Your task to perform on an android device: Open settings on Google Maps Image 0: 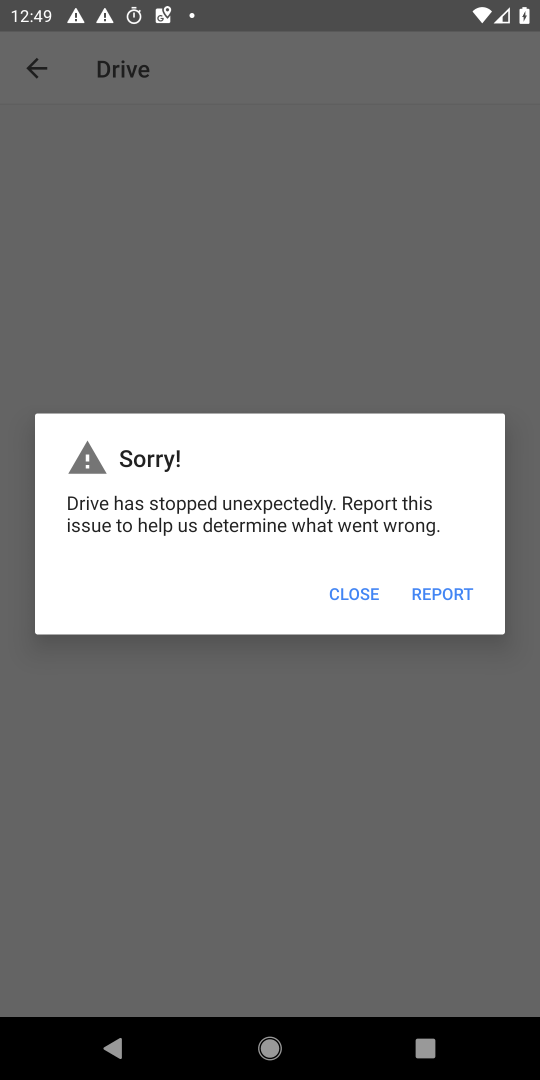
Step 0: press home button
Your task to perform on an android device: Open settings on Google Maps Image 1: 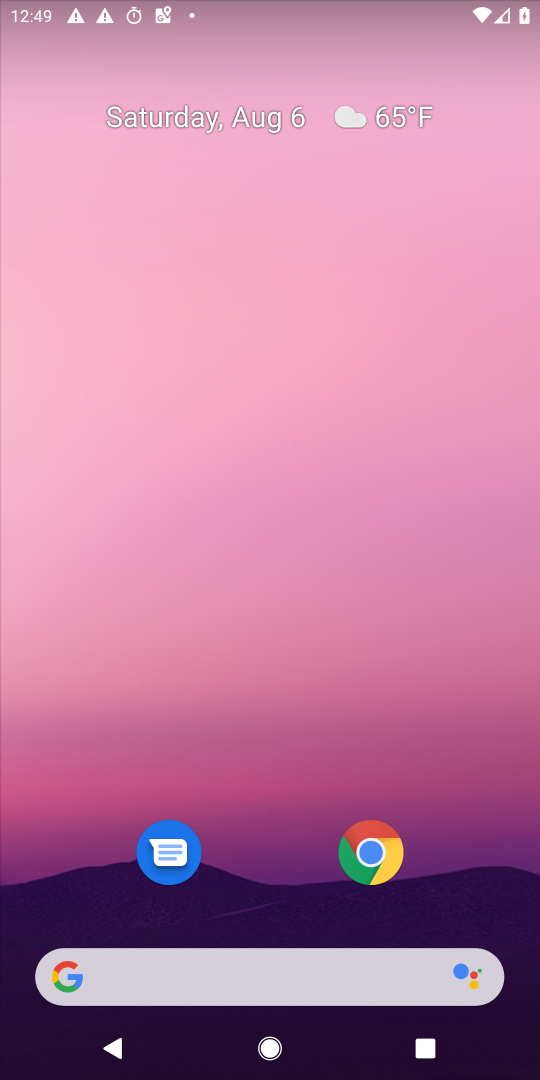
Step 1: drag from (288, 988) to (253, 202)
Your task to perform on an android device: Open settings on Google Maps Image 2: 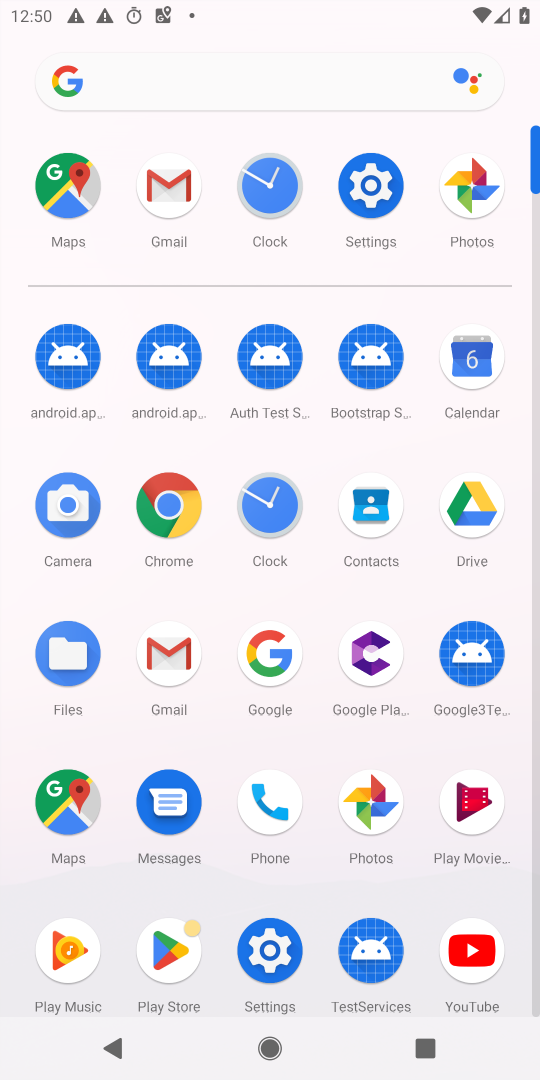
Step 2: click (47, 188)
Your task to perform on an android device: Open settings on Google Maps Image 3: 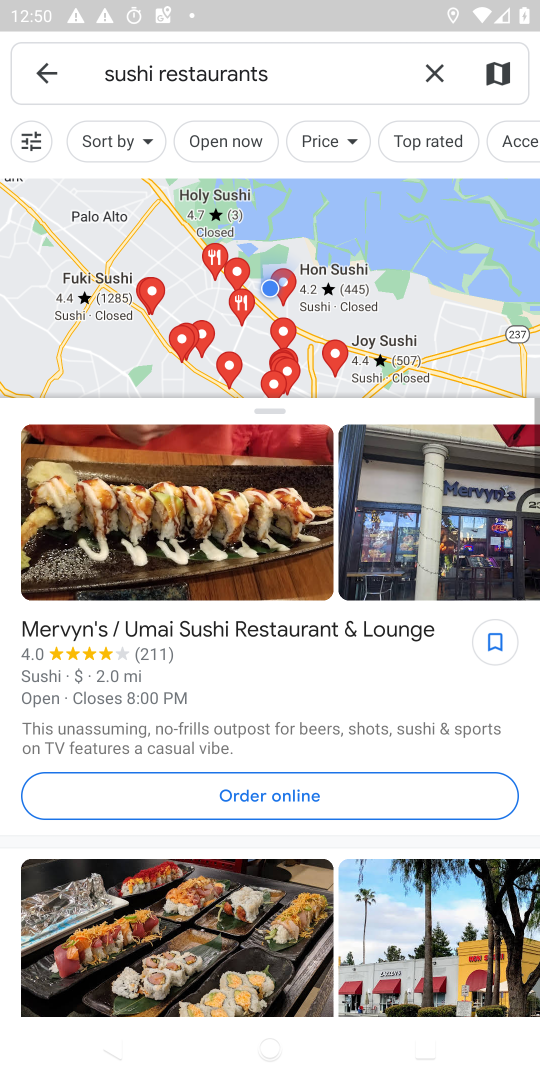
Step 3: click (33, 70)
Your task to perform on an android device: Open settings on Google Maps Image 4: 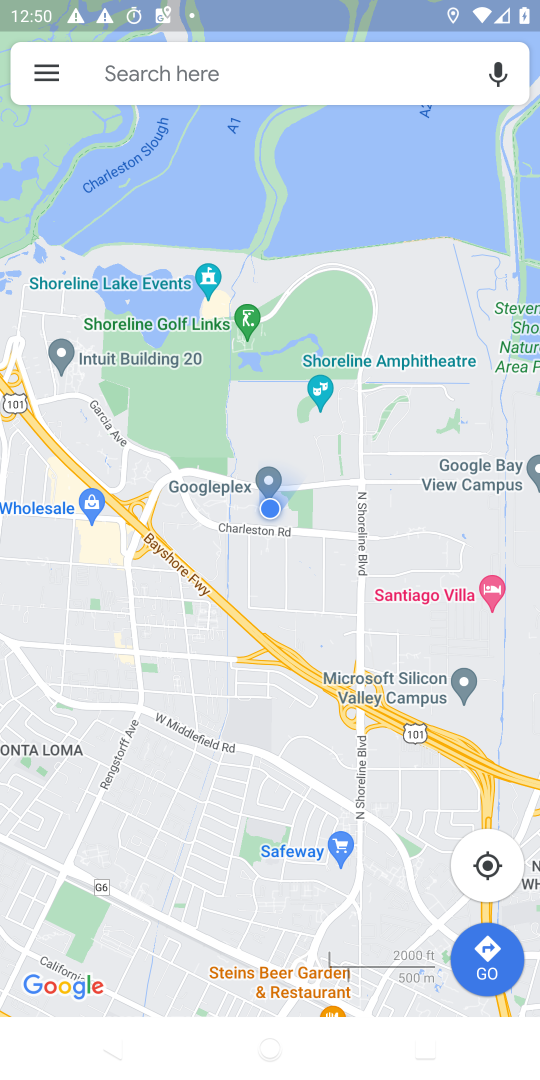
Step 4: click (33, 70)
Your task to perform on an android device: Open settings on Google Maps Image 5: 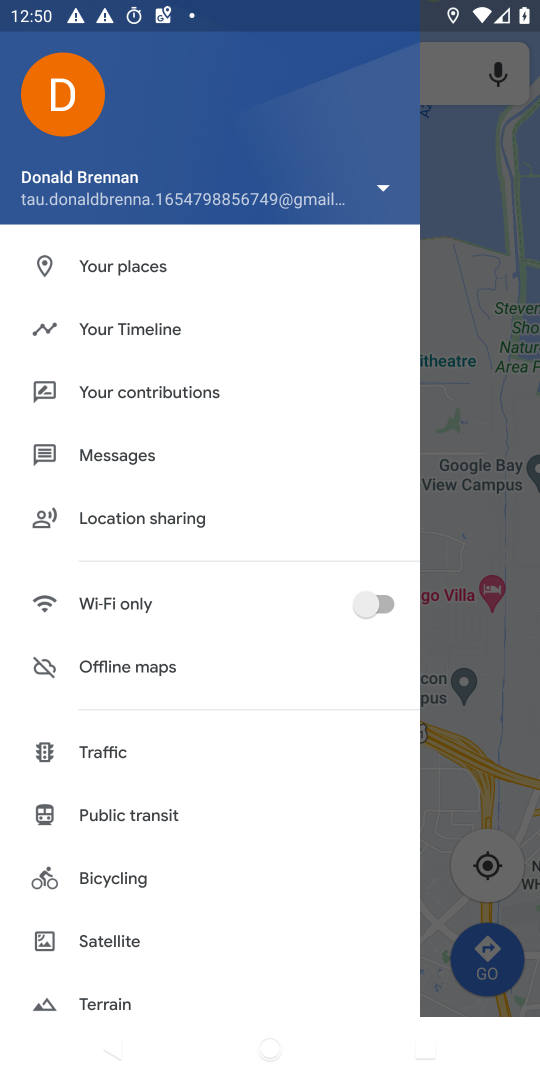
Step 5: drag from (115, 945) to (153, 818)
Your task to perform on an android device: Open settings on Google Maps Image 6: 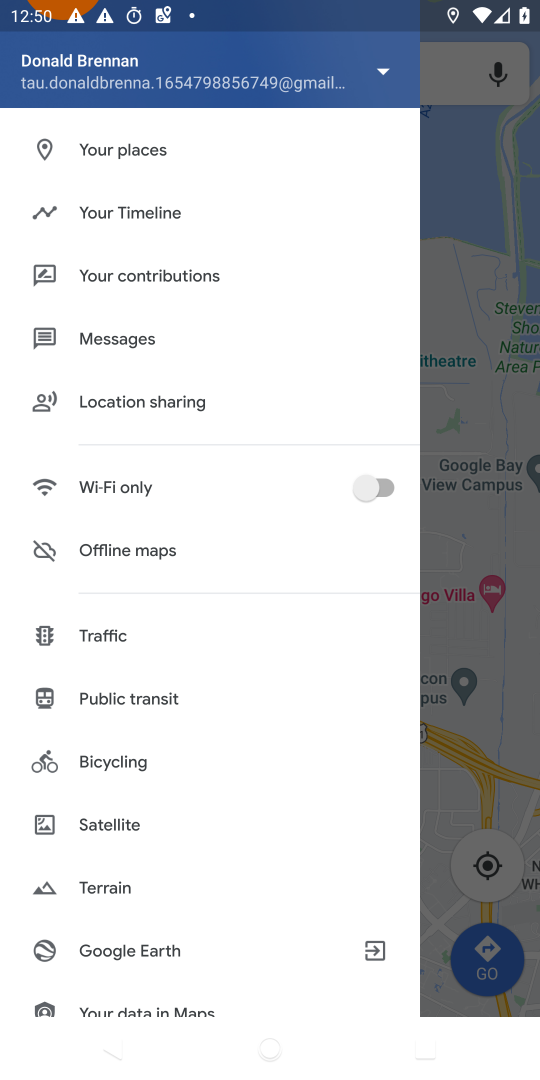
Step 6: drag from (148, 860) to (192, 663)
Your task to perform on an android device: Open settings on Google Maps Image 7: 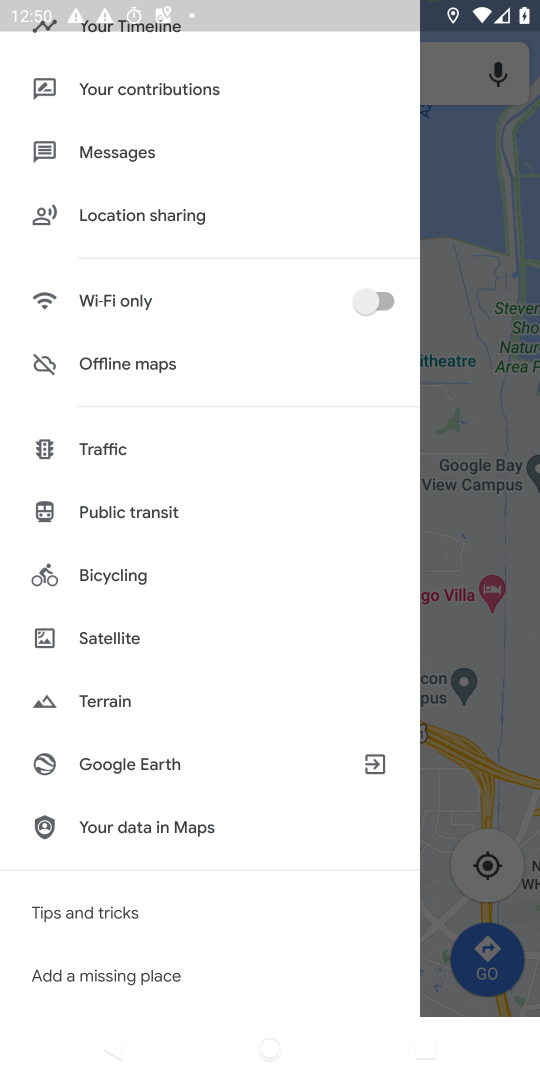
Step 7: drag from (131, 847) to (153, 690)
Your task to perform on an android device: Open settings on Google Maps Image 8: 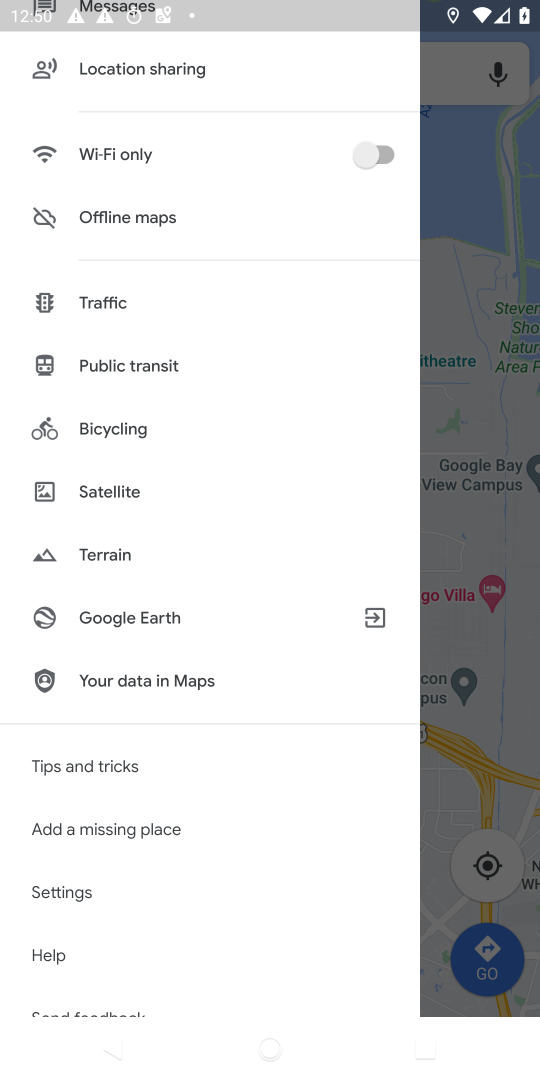
Step 8: click (117, 880)
Your task to perform on an android device: Open settings on Google Maps Image 9: 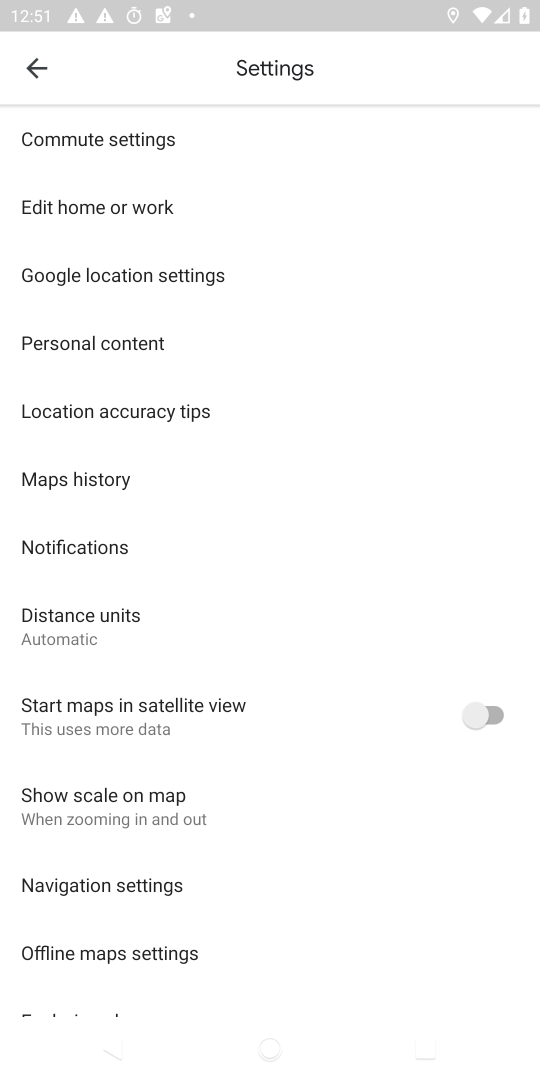
Step 9: task complete